Your task to perform on an android device: toggle show notifications on the lock screen Image 0: 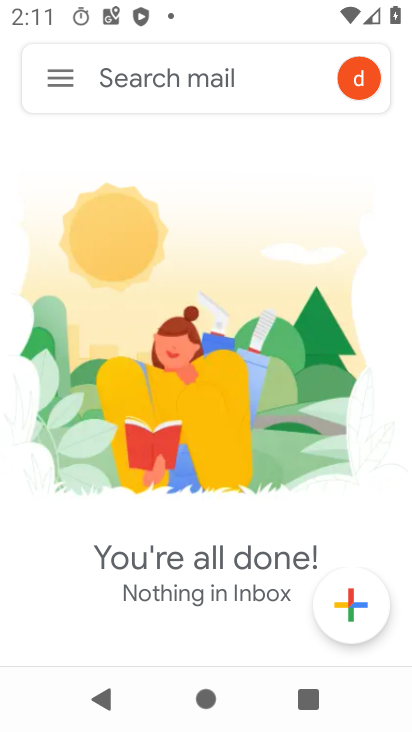
Step 0: press home button
Your task to perform on an android device: toggle show notifications on the lock screen Image 1: 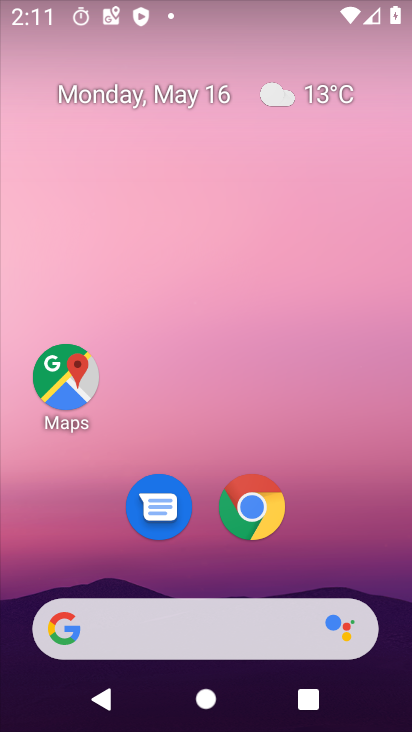
Step 1: drag from (389, 569) to (380, 147)
Your task to perform on an android device: toggle show notifications on the lock screen Image 2: 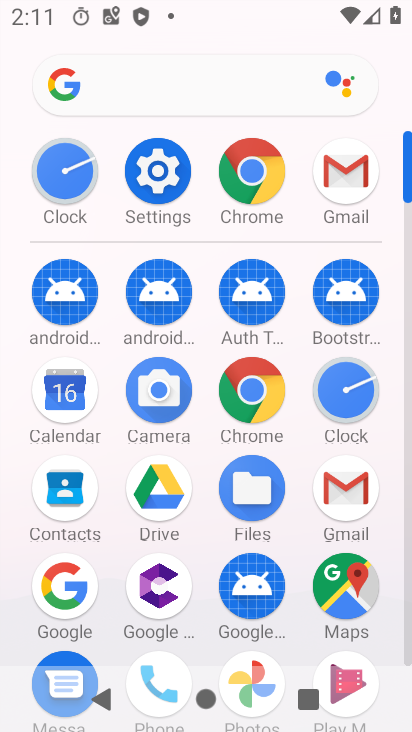
Step 2: click (161, 193)
Your task to perform on an android device: toggle show notifications on the lock screen Image 3: 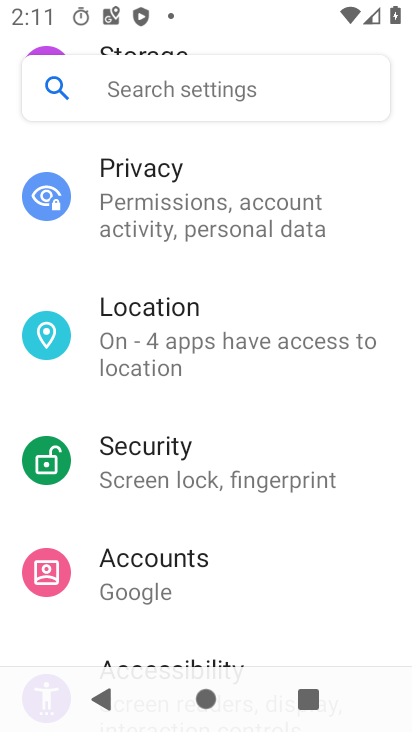
Step 3: drag from (372, 256) to (375, 378)
Your task to perform on an android device: toggle show notifications on the lock screen Image 4: 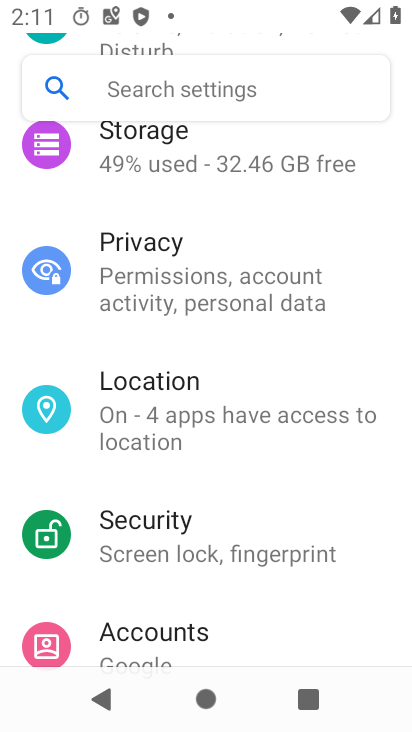
Step 4: drag from (377, 237) to (380, 381)
Your task to perform on an android device: toggle show notifications on the lock screen Image 5: 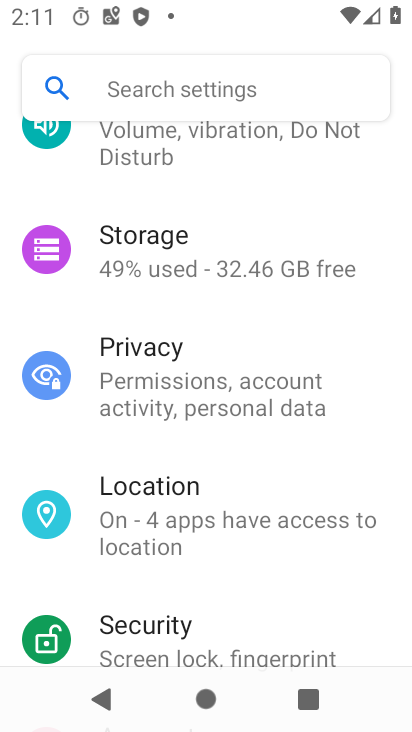
Step 5: drag from (387, 239) to (380, 362)
Your task to perform on an android device: toggle show notifications on the lock screen Image 6: 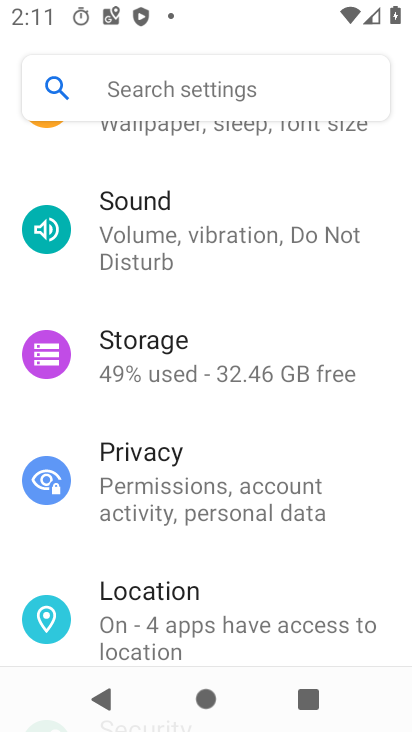
Step 6: drag from (379, 211) to (372, 353)
Your task to perform on an android device: toggle show notifications on the lock screen Image 7: 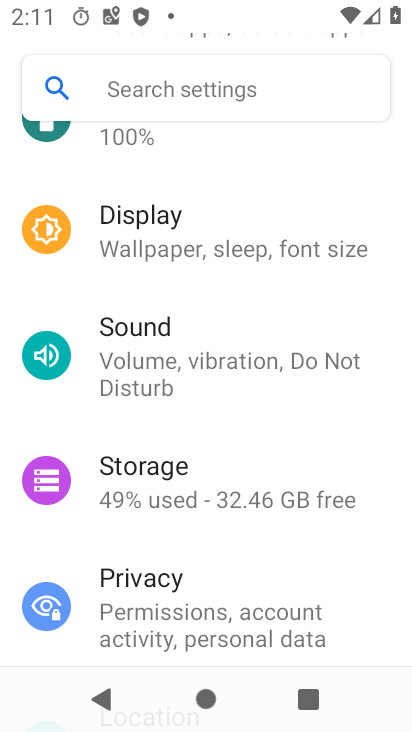
Step 7: drag from (386, 205) to (385, 352)
Your task to perform on an android device: toggle show notifications on the lock screen Image 8: 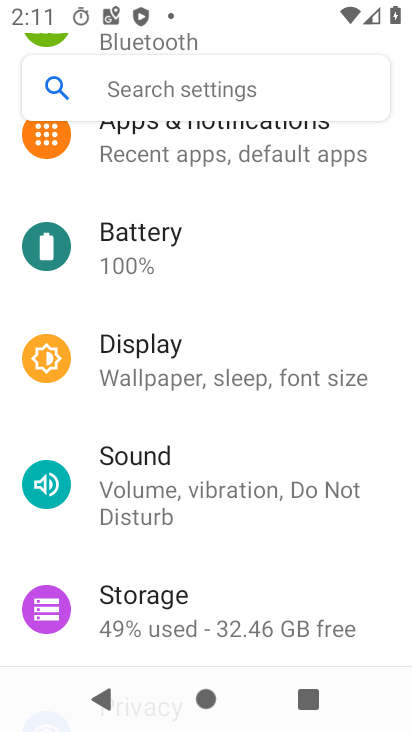
Step 8: drag from (388, 213) to (387, 339)
Your task to perform on an android device: toggle show notifications on the lock screen Image 9: 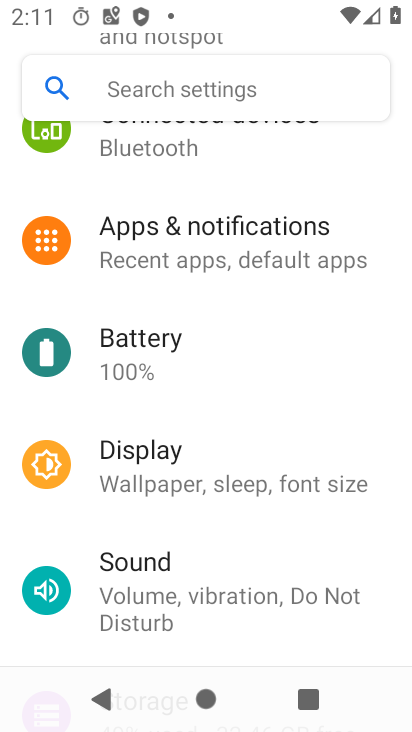
Step 9: drag from (386, 205) to (378, 416)
Your task to perform on an android device: toggle show notifications on the lock screen Image 10: 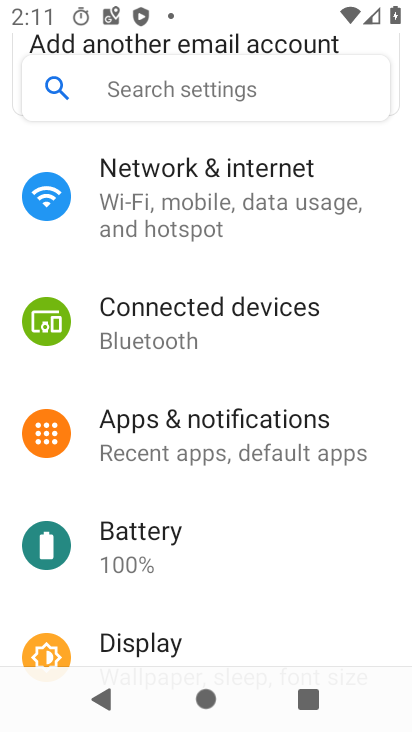
Step 10: click (241, 430)
Your task to perform on an android device: toggle show notifications on the lock screen Image 11: 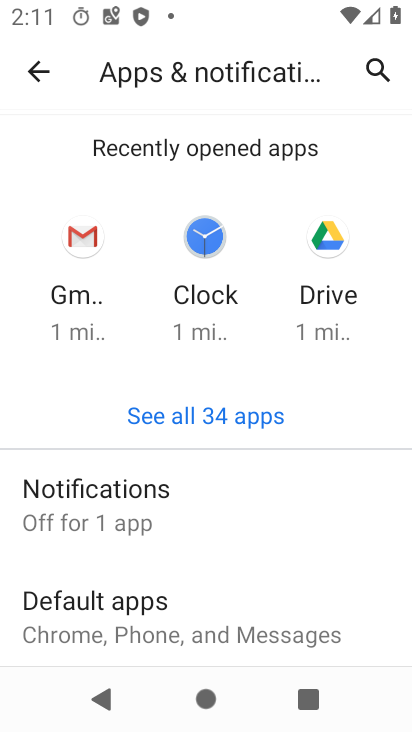
Step 11: click (104, 519)
Your task to perform on an android device: toggle show notifications on the lock screen Image 12: 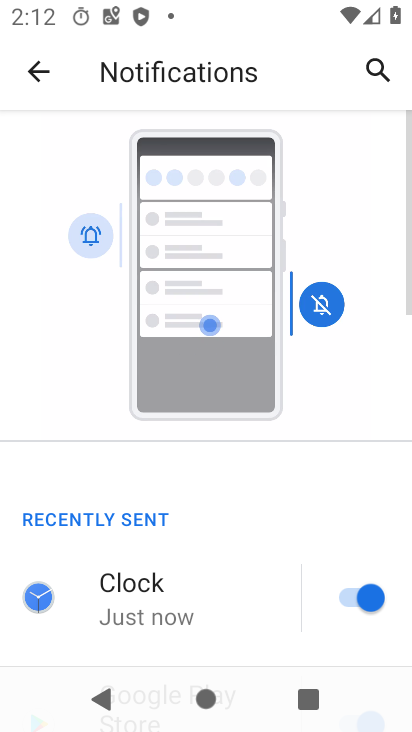
Step 12: drag from (241, 582) to (244, 379)
Your task to perform on an android device: toggle show notifications on the lock screen Image 13: 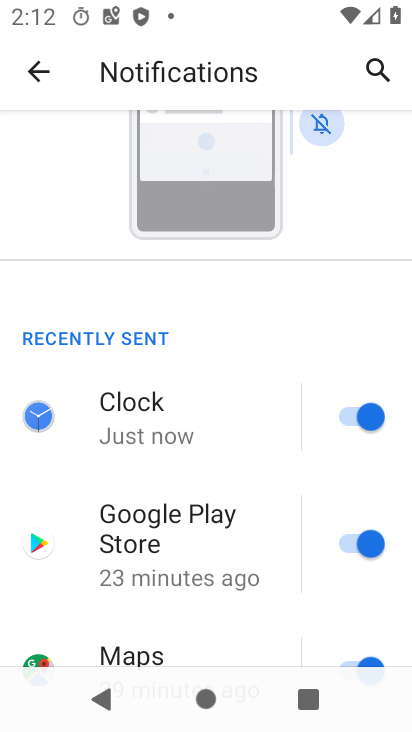
Step 13: drag from (267, 636) to (269, 464)
Your task to perform on an android device: toggle show notifications on the lock screen Image 14: 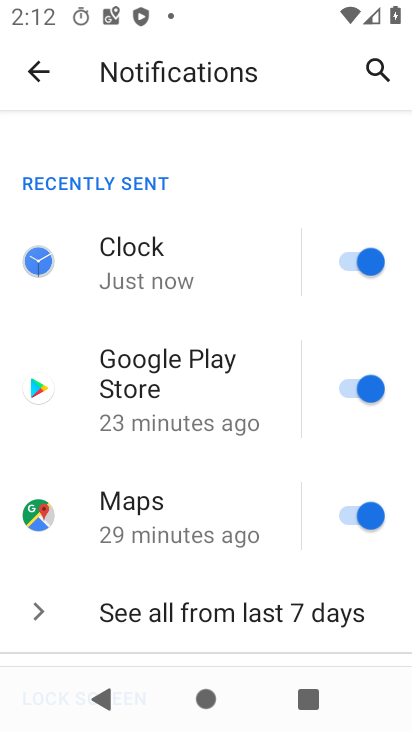
Step 14: drag from (276, 624) to (275, 403)
Your task to perform on an android device: toggle show notifications on the lock screen Image 15: 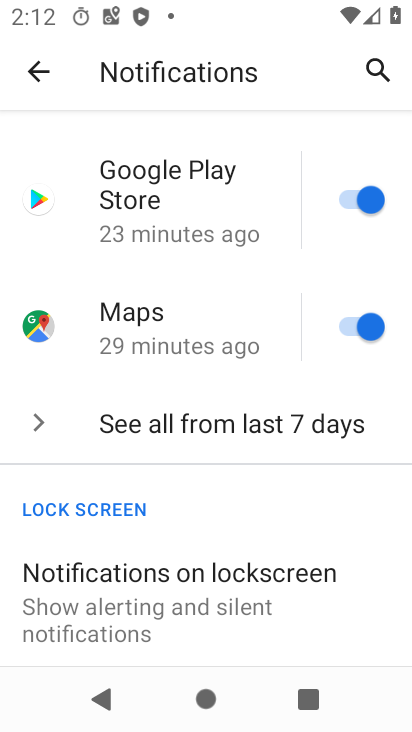
Step 15: drag from (278, 640) to (284, 438)
Your task to perform on an android device: toggle show notifications on the lock screen Image 16: 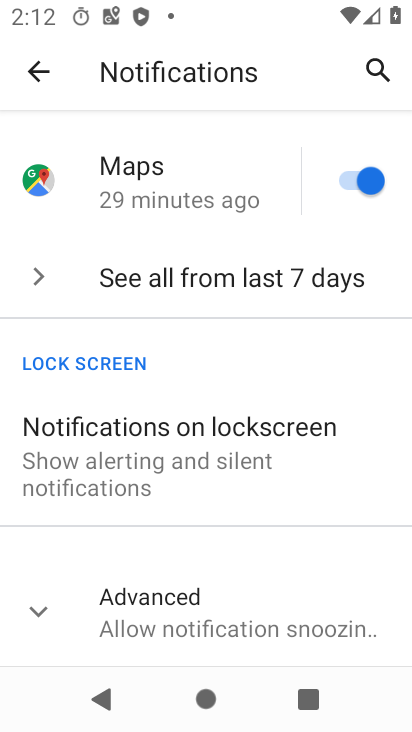
Step 16: click (187, 455)
Your task to perform on an android device: toggle show notifications on the lock screen Image 17: 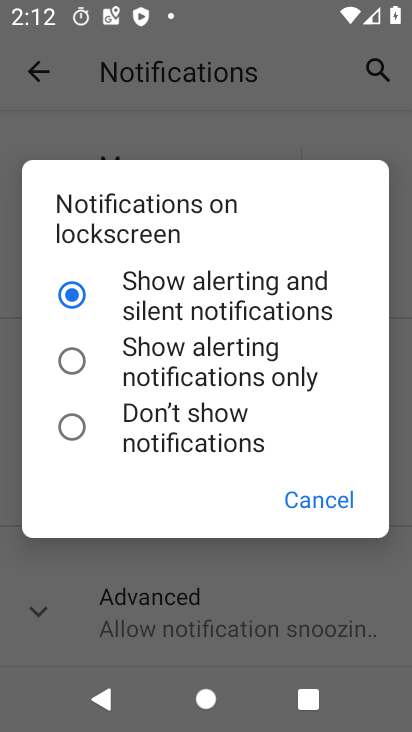
Step 17: click (88, 359)
Your task to perform on an android device: toggle show notifications on the lock screen Image 18: 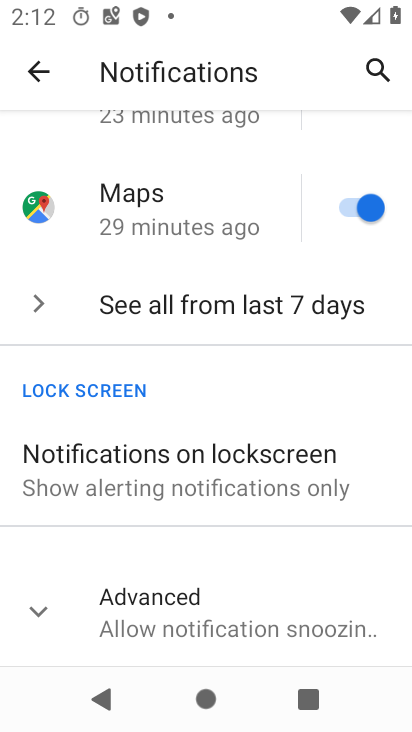
Step 18: task complete